Your task to perform on an android device: turn pop-ups on in chrome Image 0: 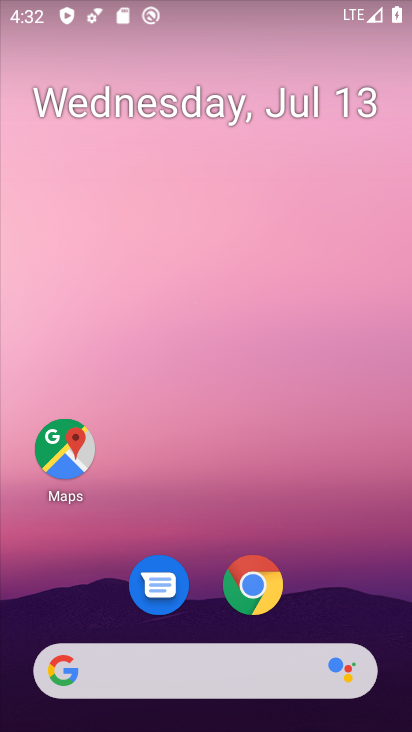
Step 0: click (270, 588)
Your task to perform on an android device: turn pop-ups on in chrome Image 1: 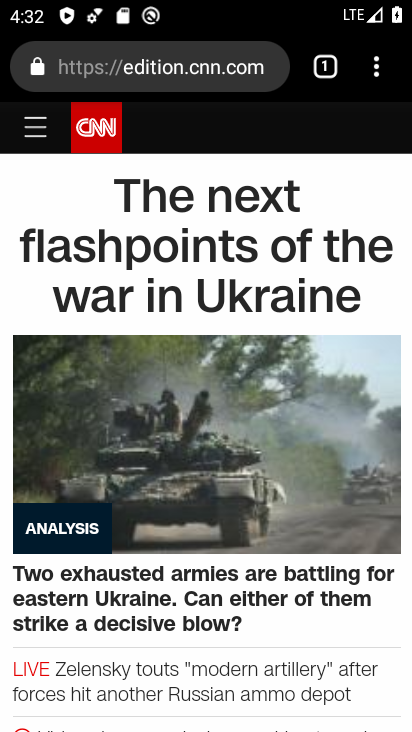
Step 1: click (376, 73)
Your task to perform on an android device: turn pop-ups on in chrome Image 2: 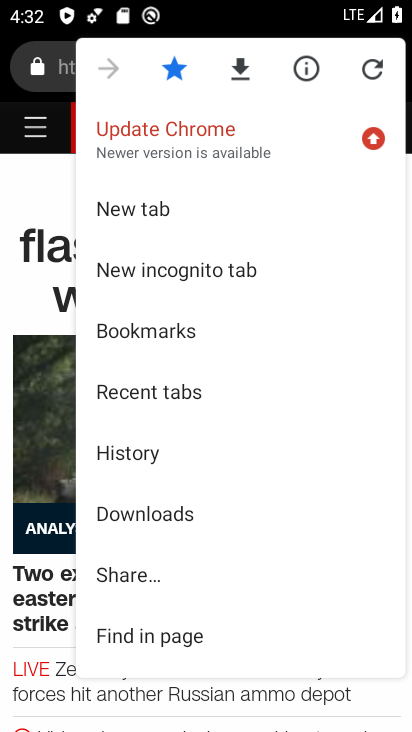
Step 2: drag from (208, 551) to (215, 209)
Your task to perform on an android device: turn pop-ups on in chrome Image 3: 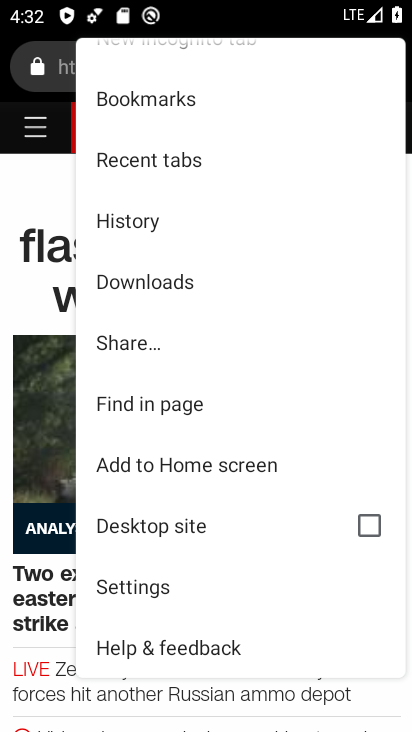
Step 3: click (148, 587)
Your task to perform on an android device: turn pop-ups on in chrome Image 4: 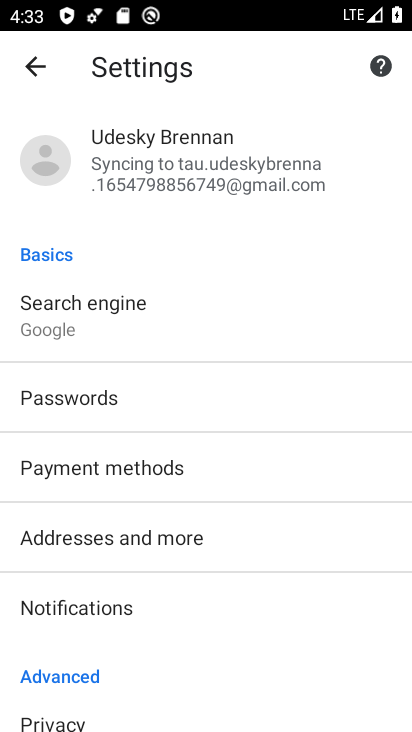
Step 4: drag from (254, 626) to (309, 142)
Your task to perform on an android device: turn pop-ups on in chrome Image 5: 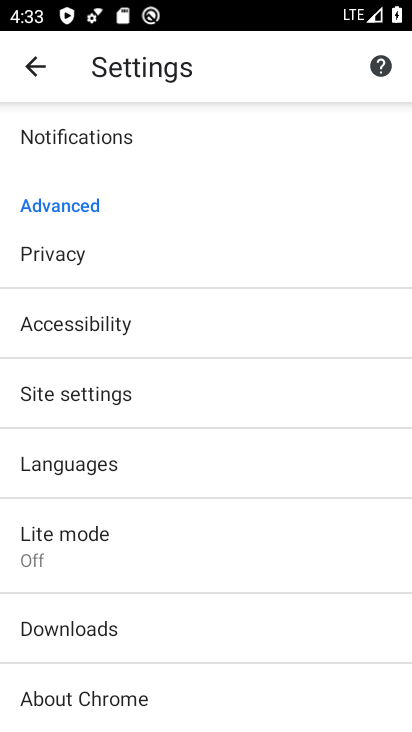
Step 5: click (121, 400)
Your task to perform on an android device: turn pop-ups on in chrome Image 6: 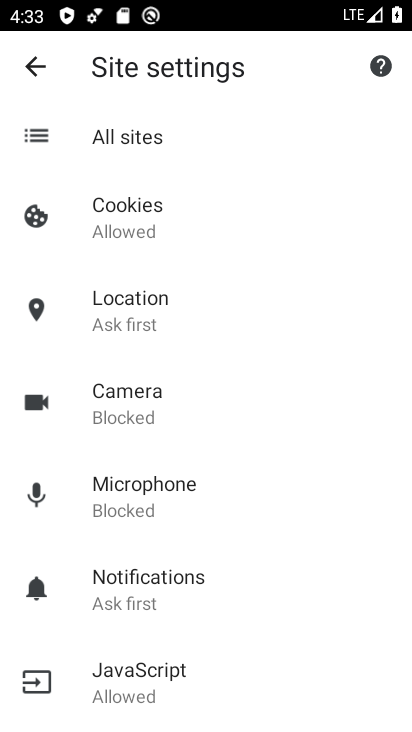
Step 6: drag from (266, 610) to (281, 381)
Your task to perform on an android device: turn pop-ups on in chrome Image 7: 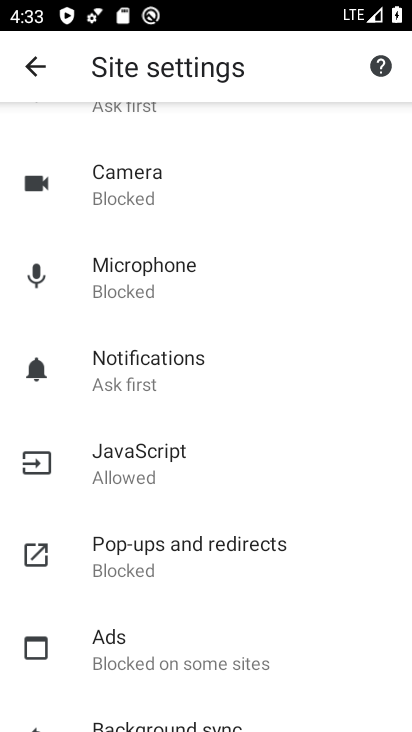
Step 7: click (243, 561)
Your task to perform on an android device: turn pop-ups on in chrome Image 8: 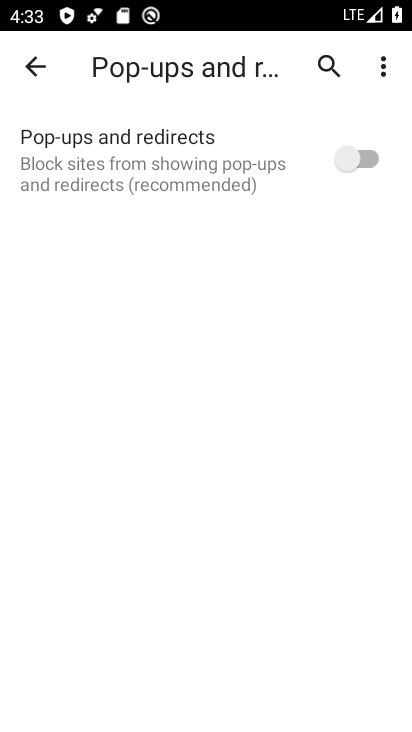
Step 8: click (356, 148)
Your task to perform on an android device: turn pop-ups on in chrome Image 9: 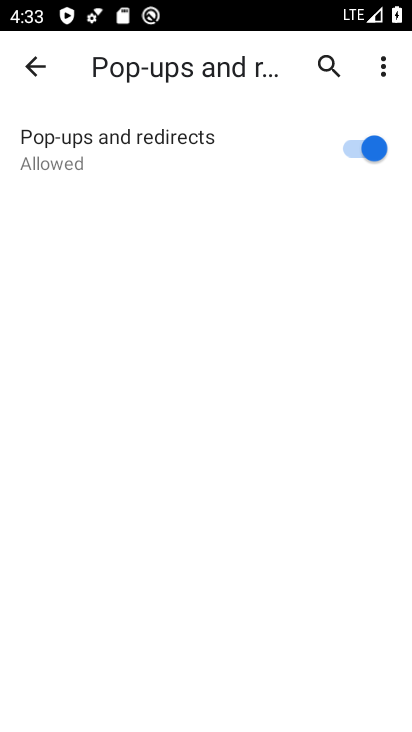
Step 9: task complete